Your task to perform on an android device: Open sound settings Image 0: 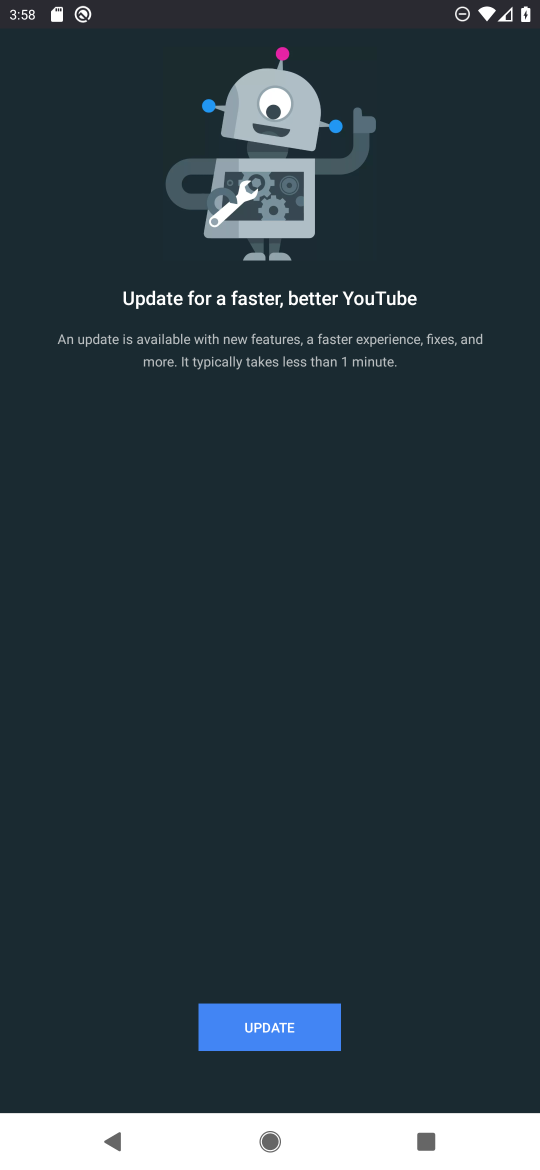
Step 0: press home button
Your task to perform on an android device: Open sound settings Image 1: 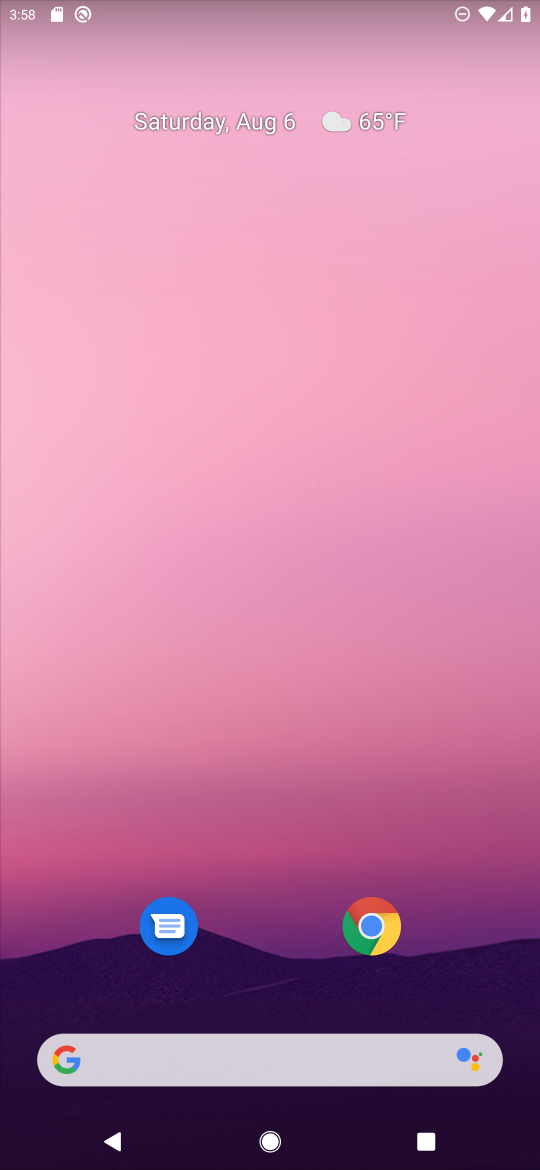
Step 1: drag from (270, 960) to (251, 243)
Your task to perform on an android device: Open sound settings Image 2: 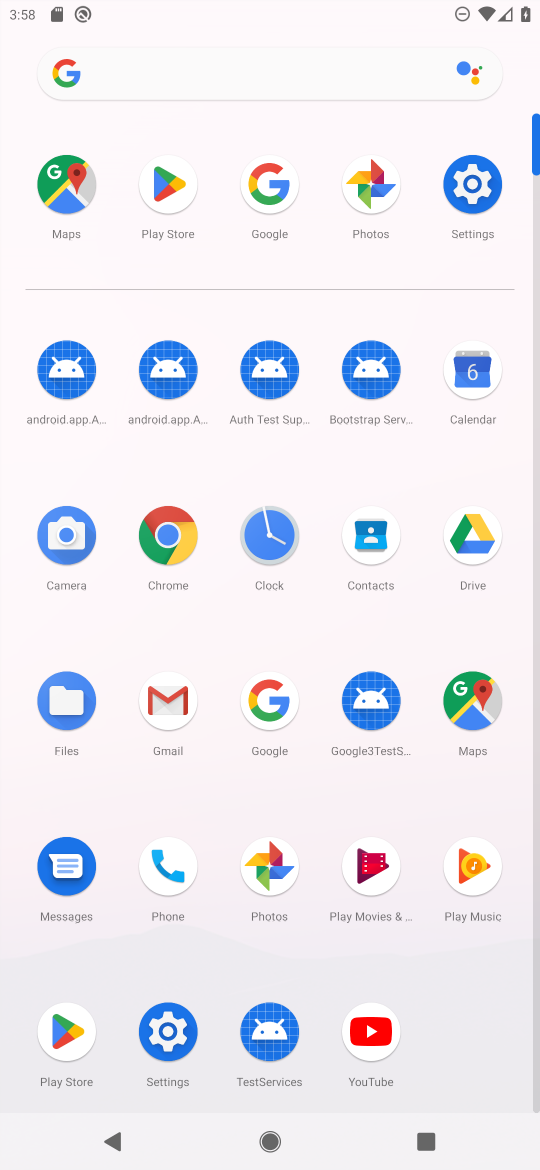
Step 2: click (475, 202)
Your task to perform on an android device: Open sound settings Image 3: 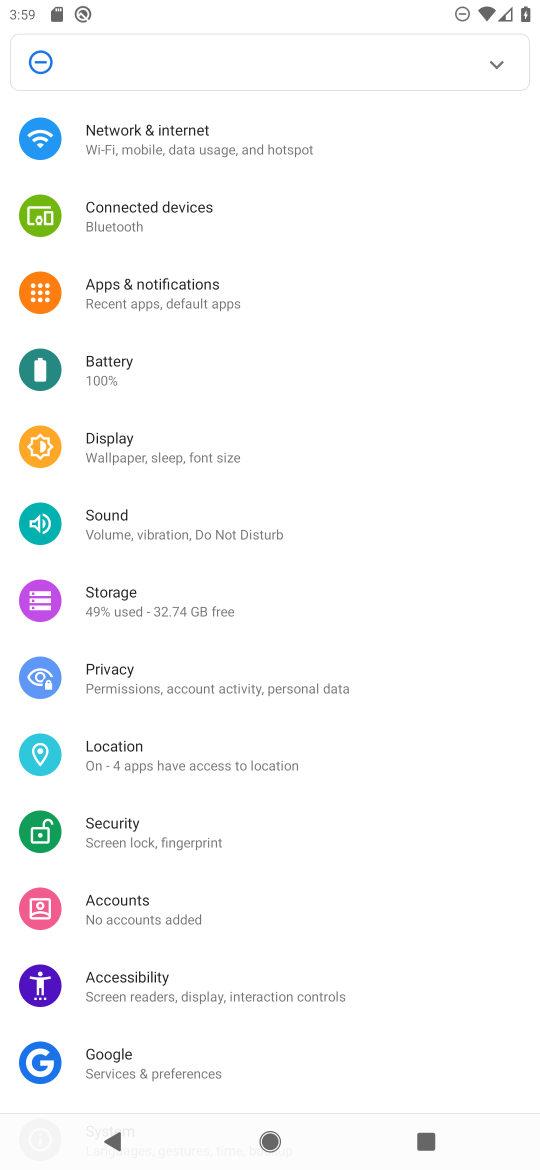
Step 3: click (211, 536)
Your task to perform on an android device: Open sound settings Image 4: 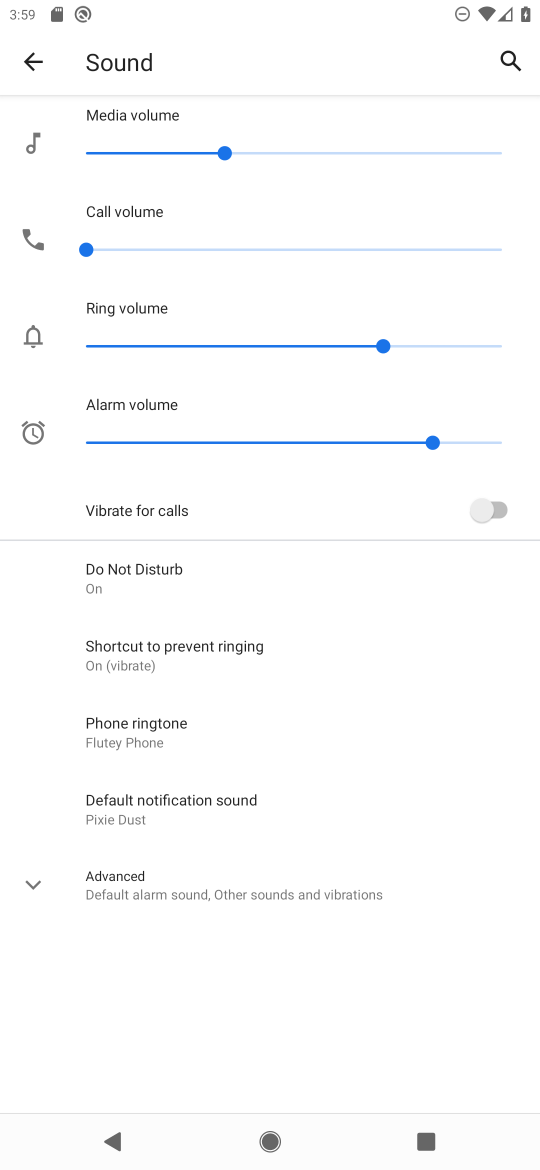
Step 4: task complete